Your task to perform on an android device: open sync settings in chrome Image 0: 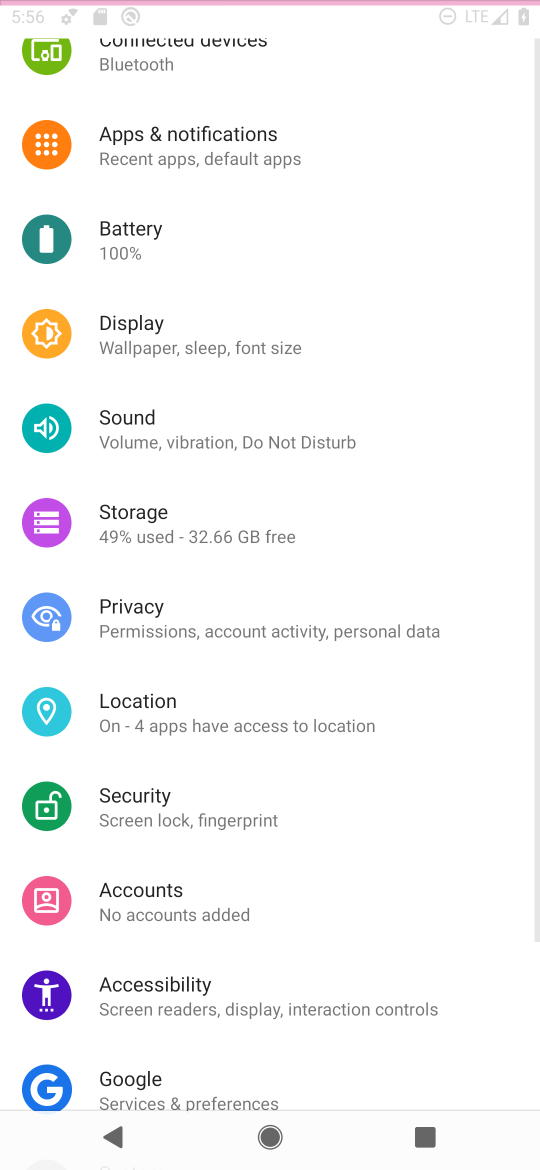
Step 0: press home button
Your task to perform on an android device: open sync settings in chrome Image 1: 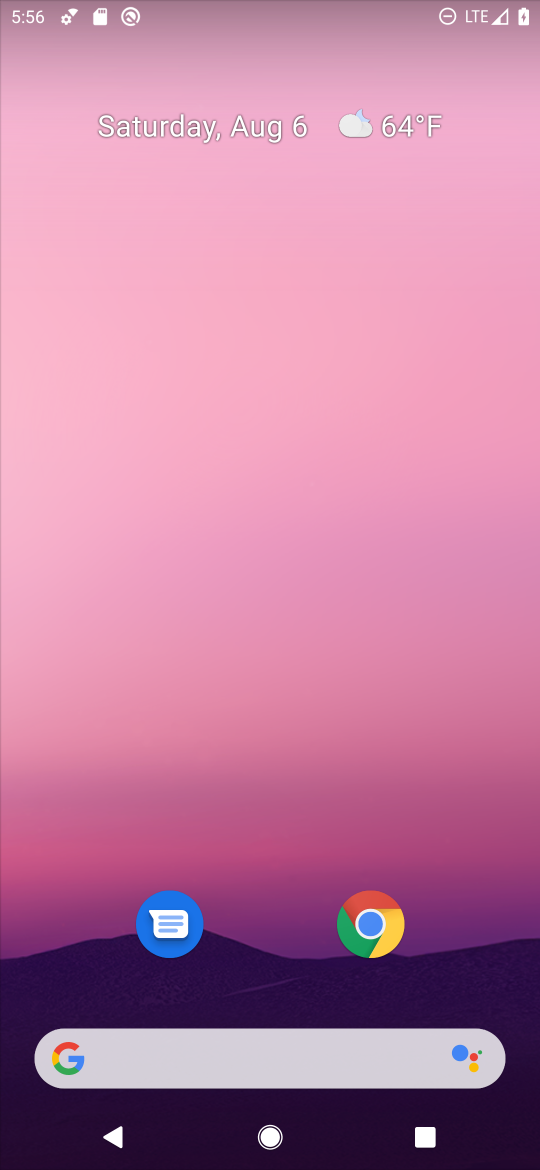
Step 1: click (372, 923)
Your task to perform on an android device: open sync settings in chrome Image 2: 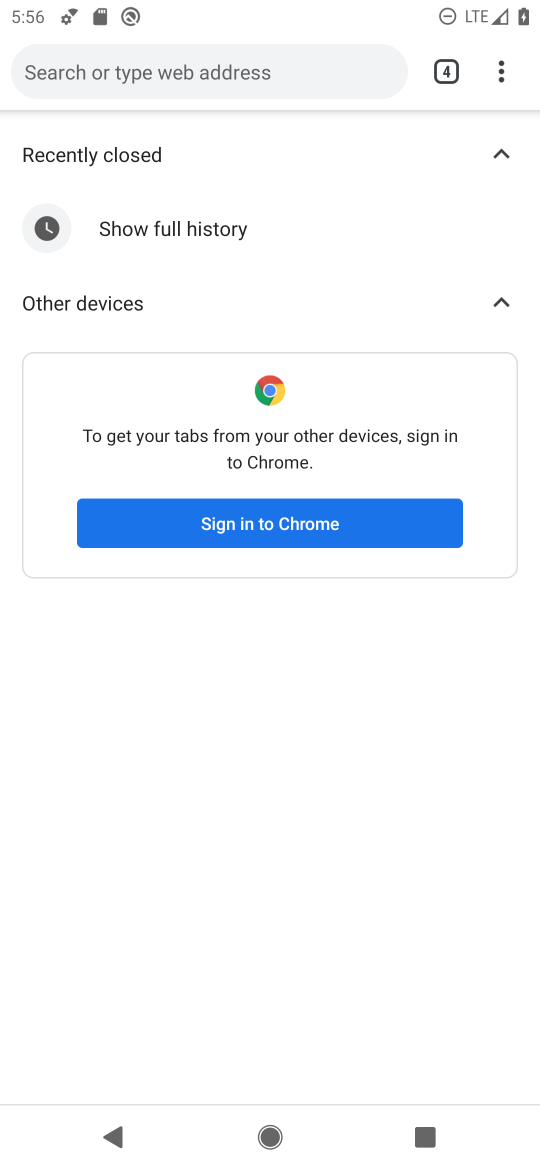
Step 2: click (500, 73)
Your task to perform on an android device: open sync settings in chrome Image 3: 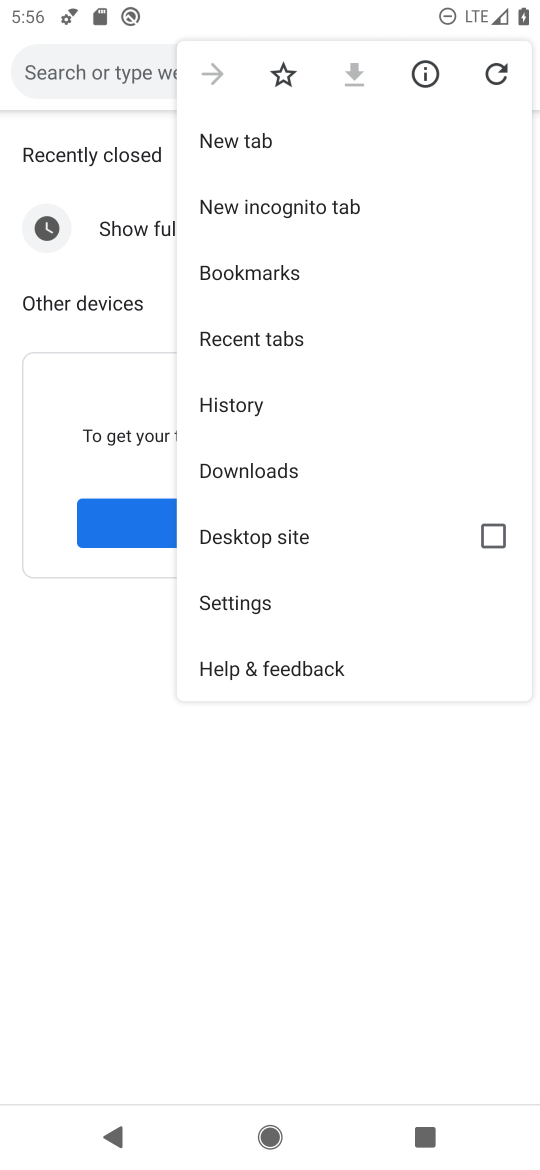
Step 3: click (242, 596)
Your task to perform on an android device: open sync settings in chrome Image 4: 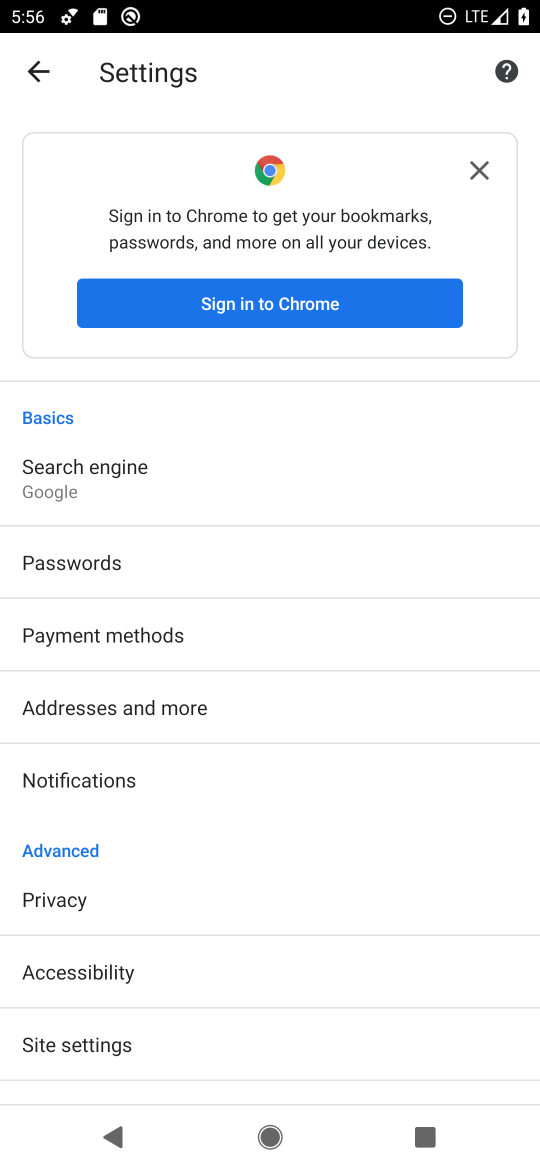
Step 4: click (264, 250)
Your task to perform on an android device: open sync settings in chrome Image 5: 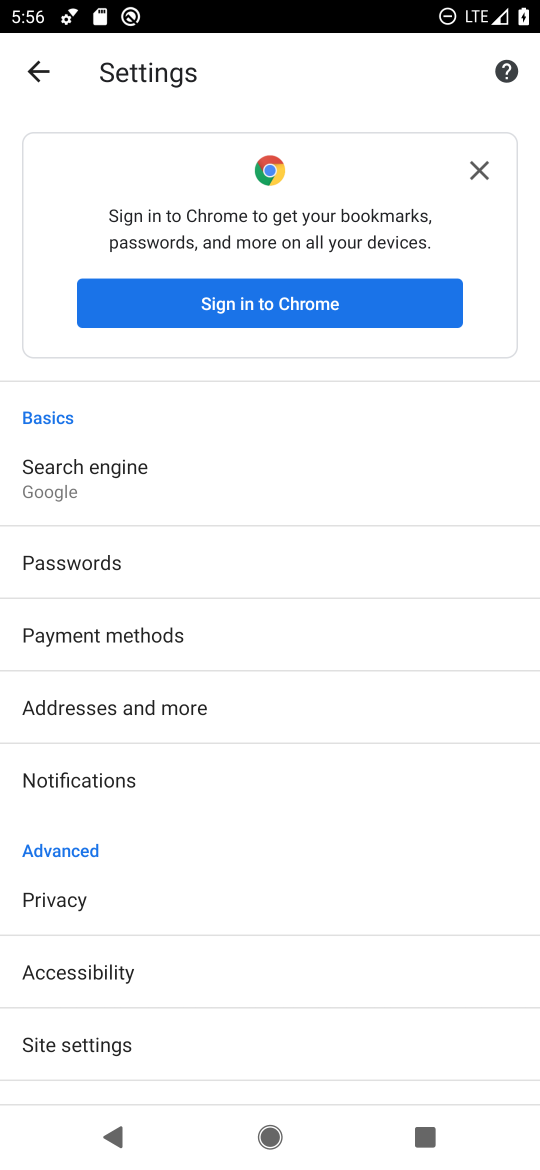
Step 5: click (478, 164)
Your task to perform on an android device: open sync settings in chrome Image 6: 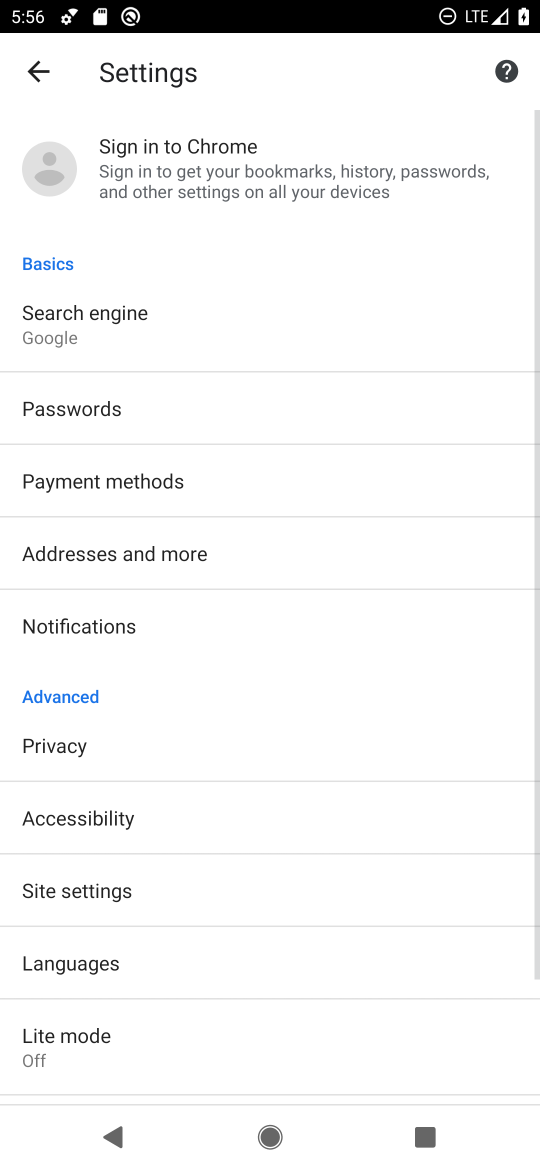
Step 6: click (195, 160)
Your task to perform on an android device: open sync settings in chrome Image 7: 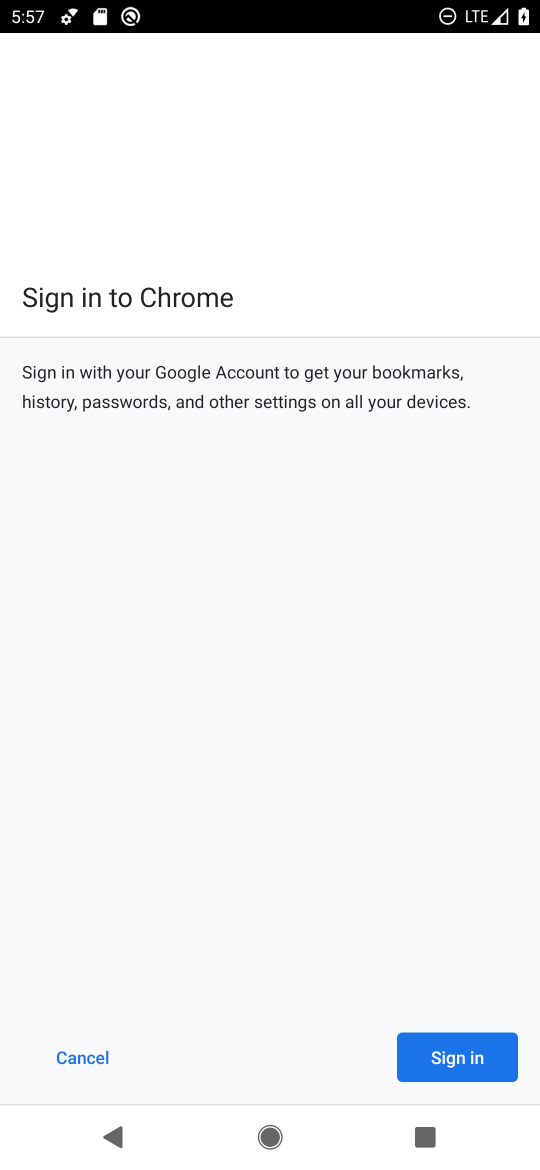
Step 7: task complete